Your task to perform on an android device: Go to Yahoo.com Image 0: 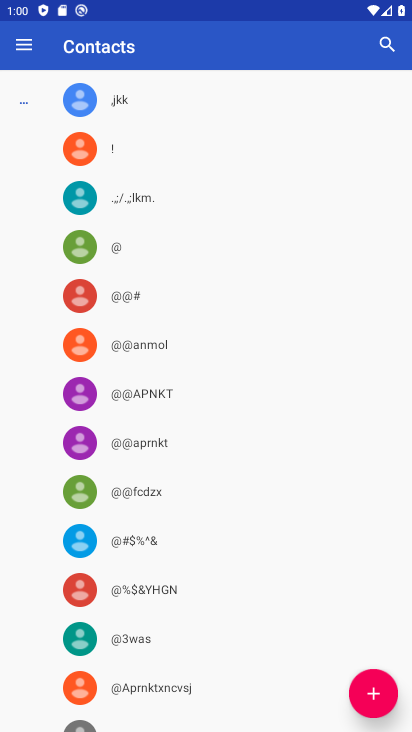
Step 0: press home button
Your task to perform on an android device: Go to Yahoo.com Image 1: 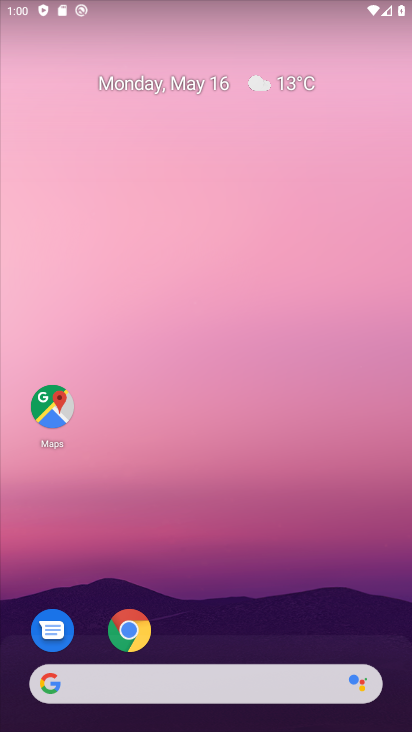
Step 1: click (140, 630)
Your task to perform on an android device: Go to Yahoo.com Image 2: 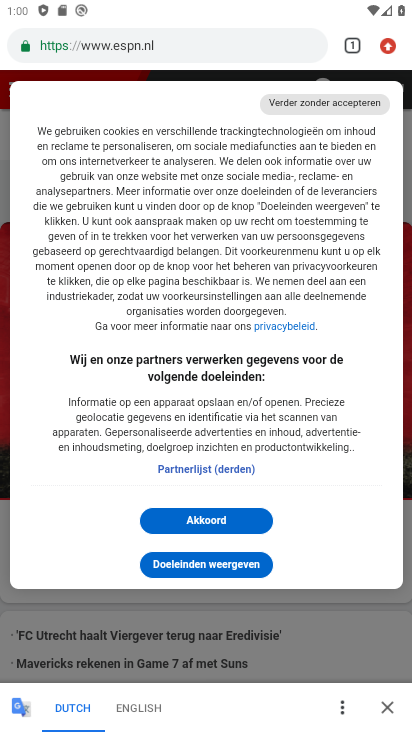
Step 2: click (349, 41)
Your task to perform on an android device: Go to Yahoo.com Image 3: 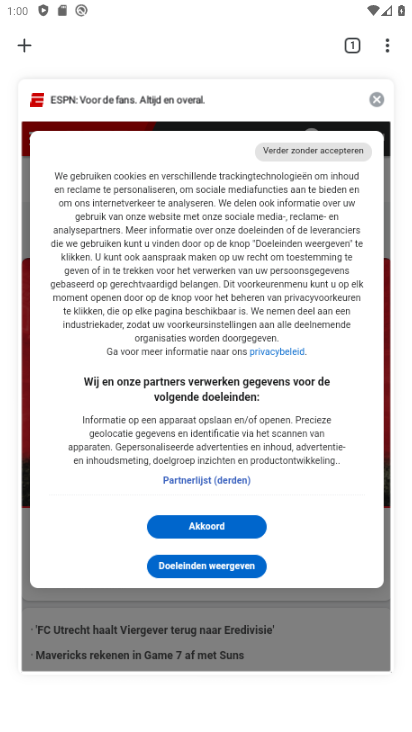
Step 3: click (23, 26)
Your task to perform on an android device: Go to Yahoo.com Image 4: 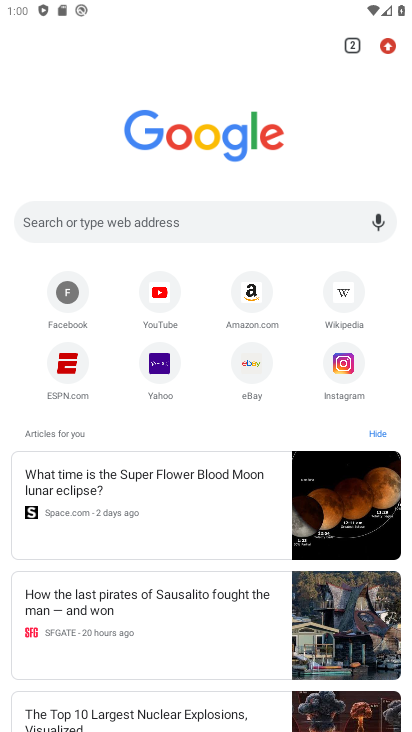
Step 4: click (158, 360)
Your task to perform on an android device: Go to Yahoo.com Image 5: 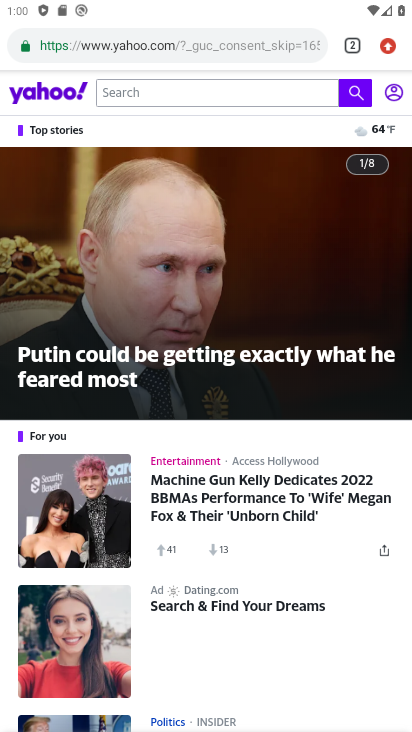
Step 5: task complete